Your task to perform on an android device: Clear the shopping cart on target.com. Add razer blackwidow to the cart on target.com, then select checkout. Image 0: 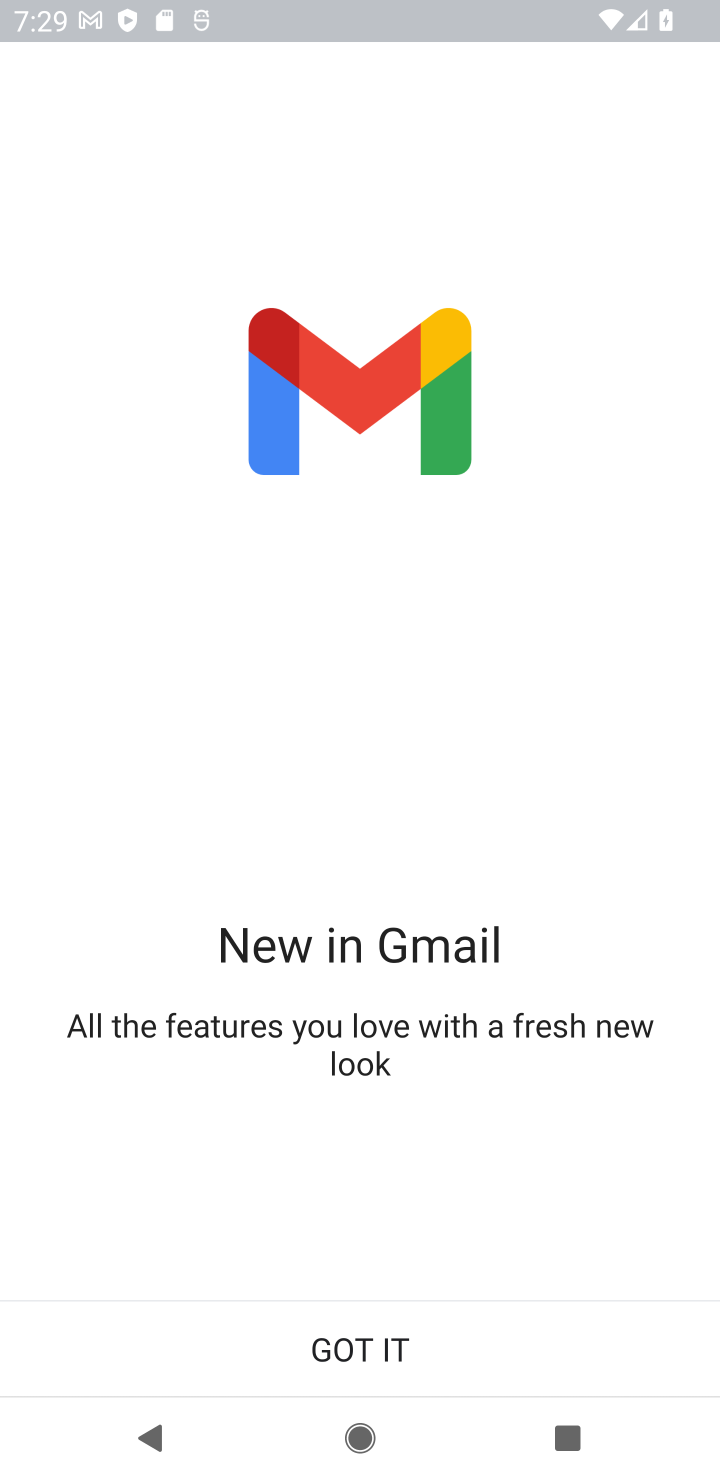
Step 0: press home button
Your task to perform on an android device: Clear the shopping cart on target.com. Add razer blackwidow to the cart on target.com, then select checkout. Image 1: 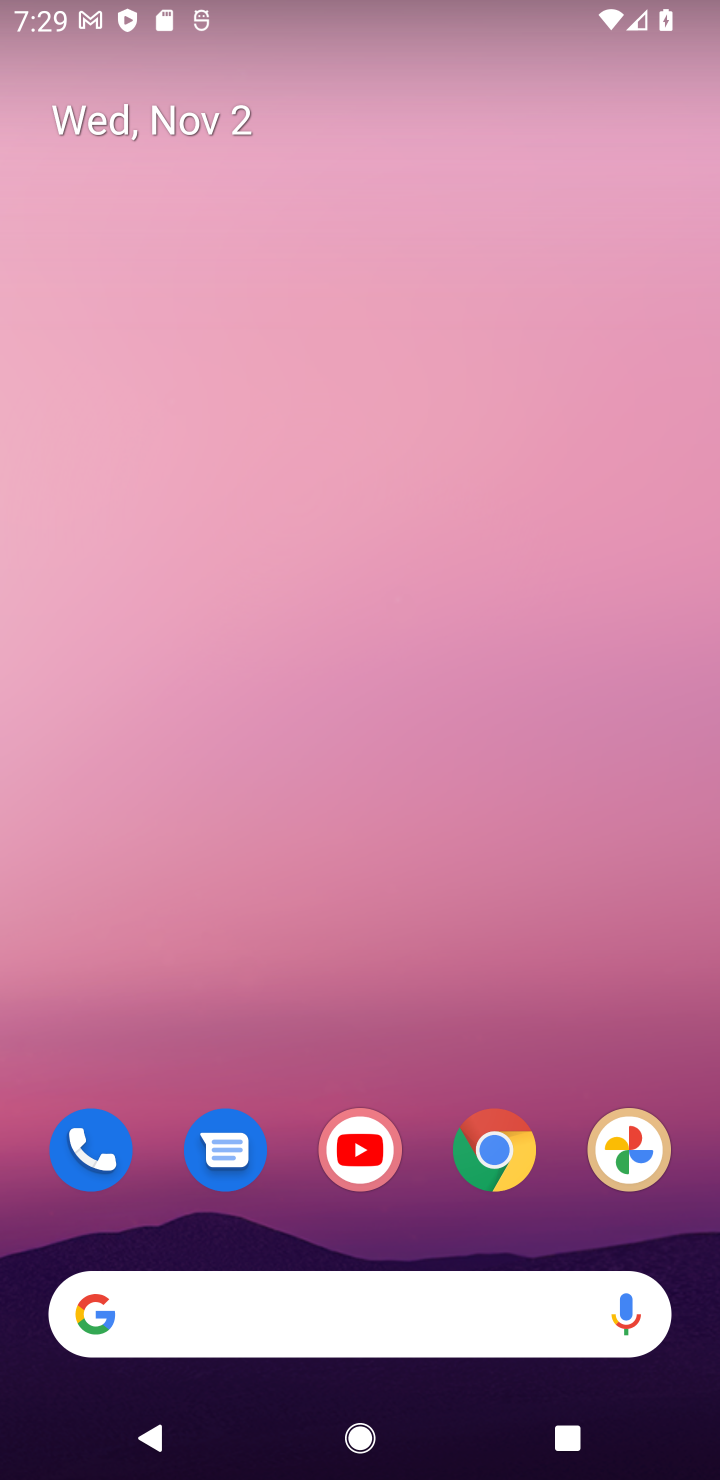
Step 1: click (508, 1143)
Your task to perform on an android device: Clear the shopping cart on target.com. Add razer blackwidow to the cart on target.com, then select checkout. Image 2: 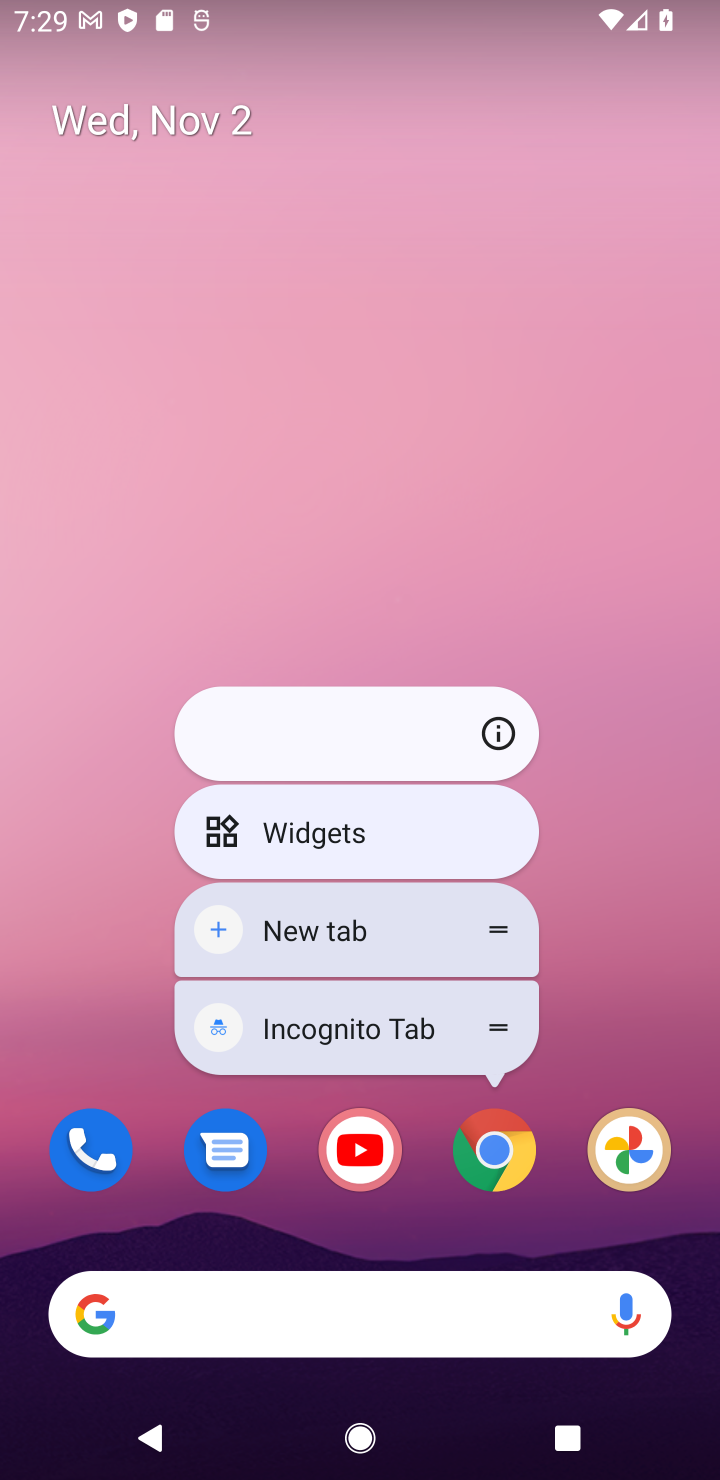
Step 2: click (383, 510)
Your task to perform on an android device: Clear the shopping cart on target.com. Add razer blackwidow to the cart on target.com, then select checkout. Image 3: 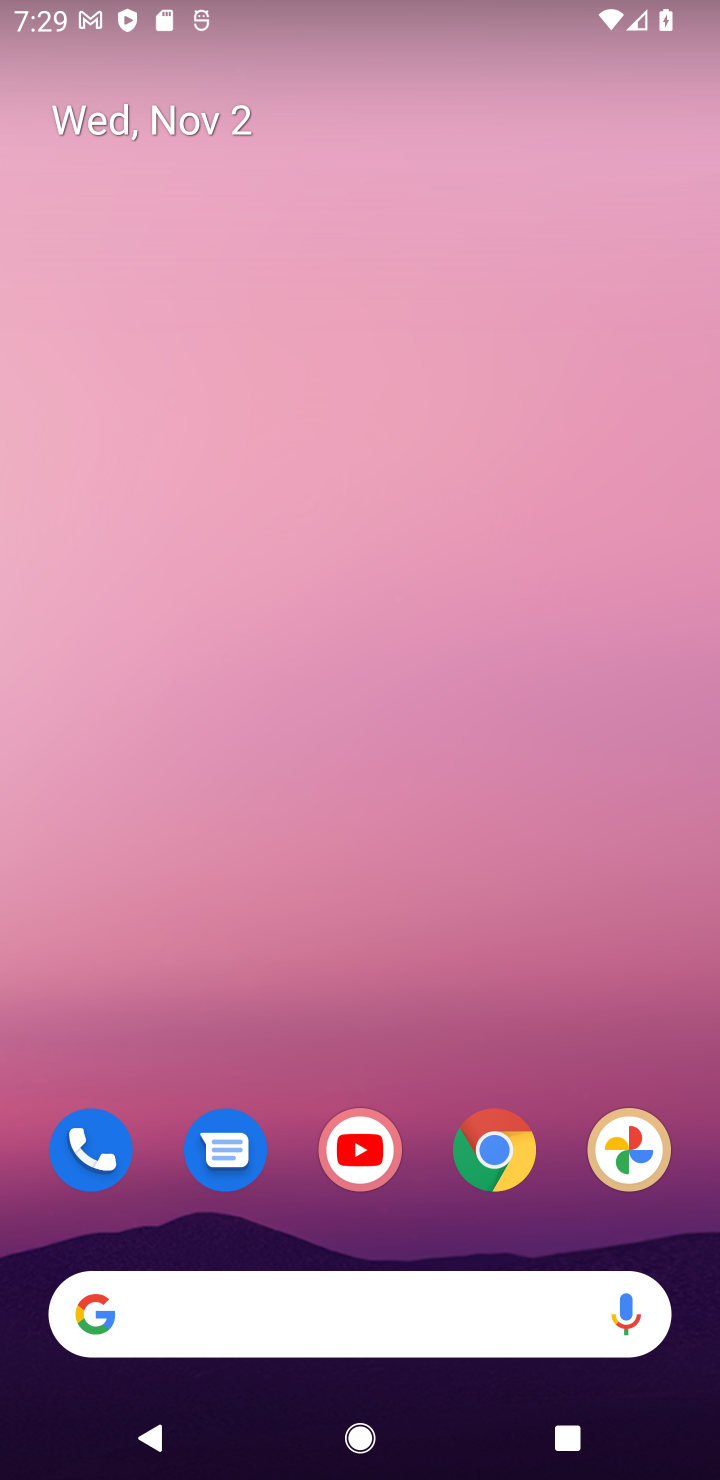
Step 3: click (496, 1144)
Your task to perform on an android device: Clear the shopping cart on target.com. Add razer blackwidow to the cart on target.com, then select checkout. Image 4: 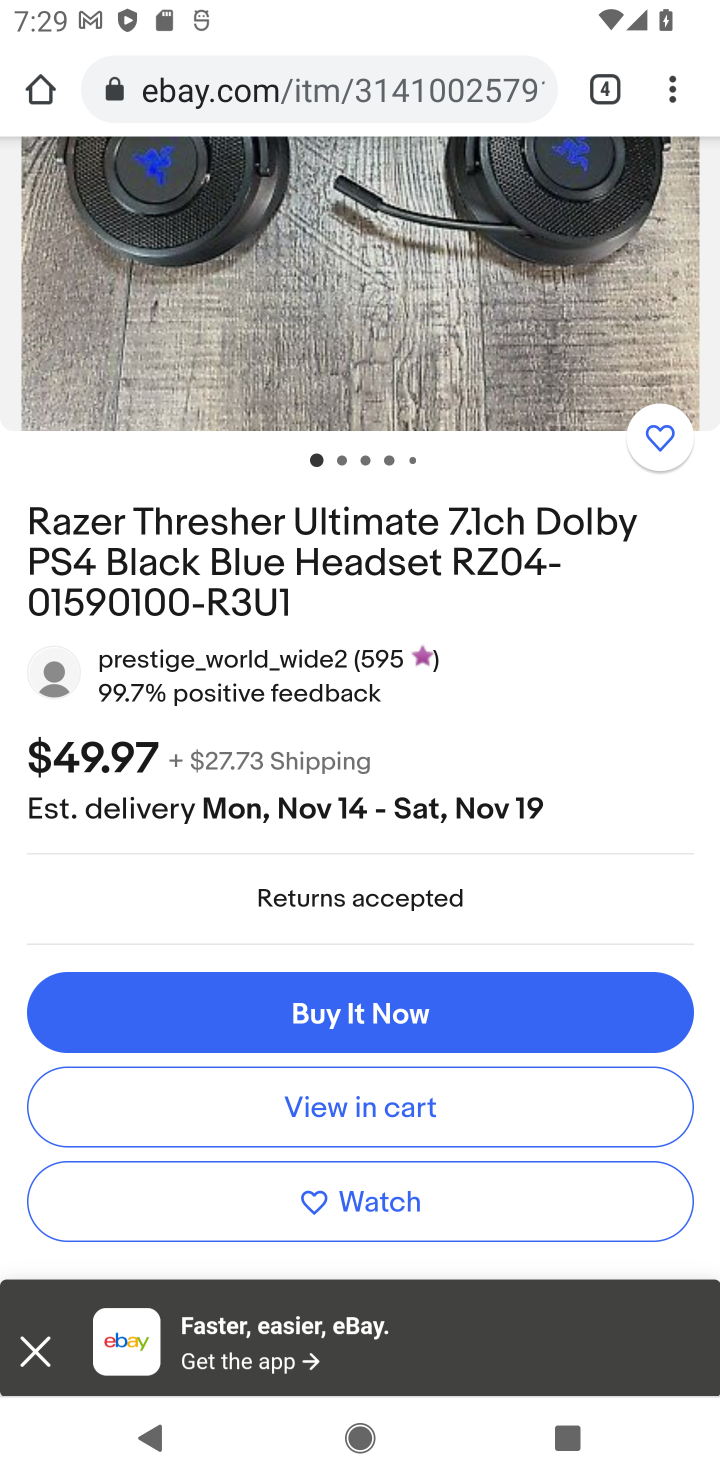
Step 4: click (598, 92)
Your task to perform on an android device: Clear the shopping cart on target.com. Add razer blackwidow to the cart on target.com, then select checkout. Image 5: 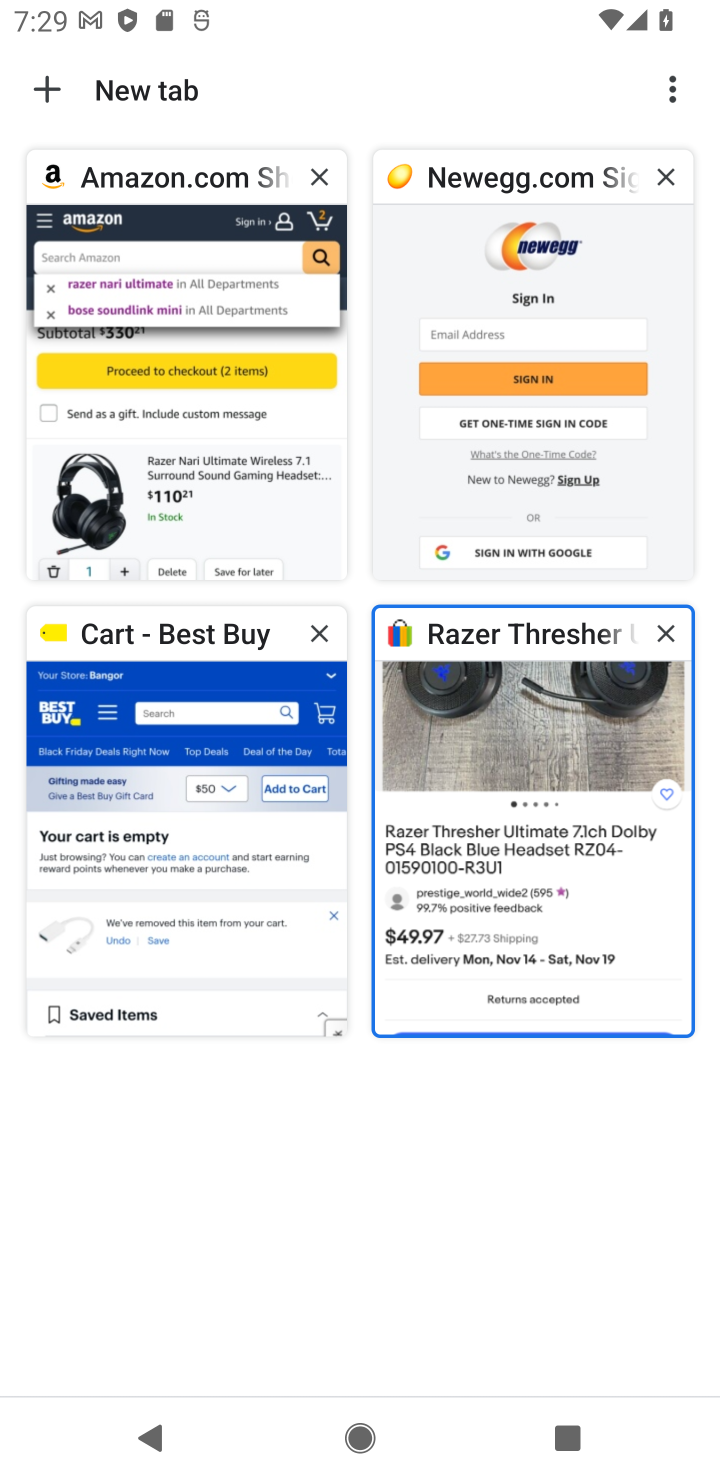
Step 5: click (50, 90)
Your task to perform on an android device: Clear the shopping cart on target.com. Add razer blackwidow to the cart on target.com, then select checkout. Image 6: 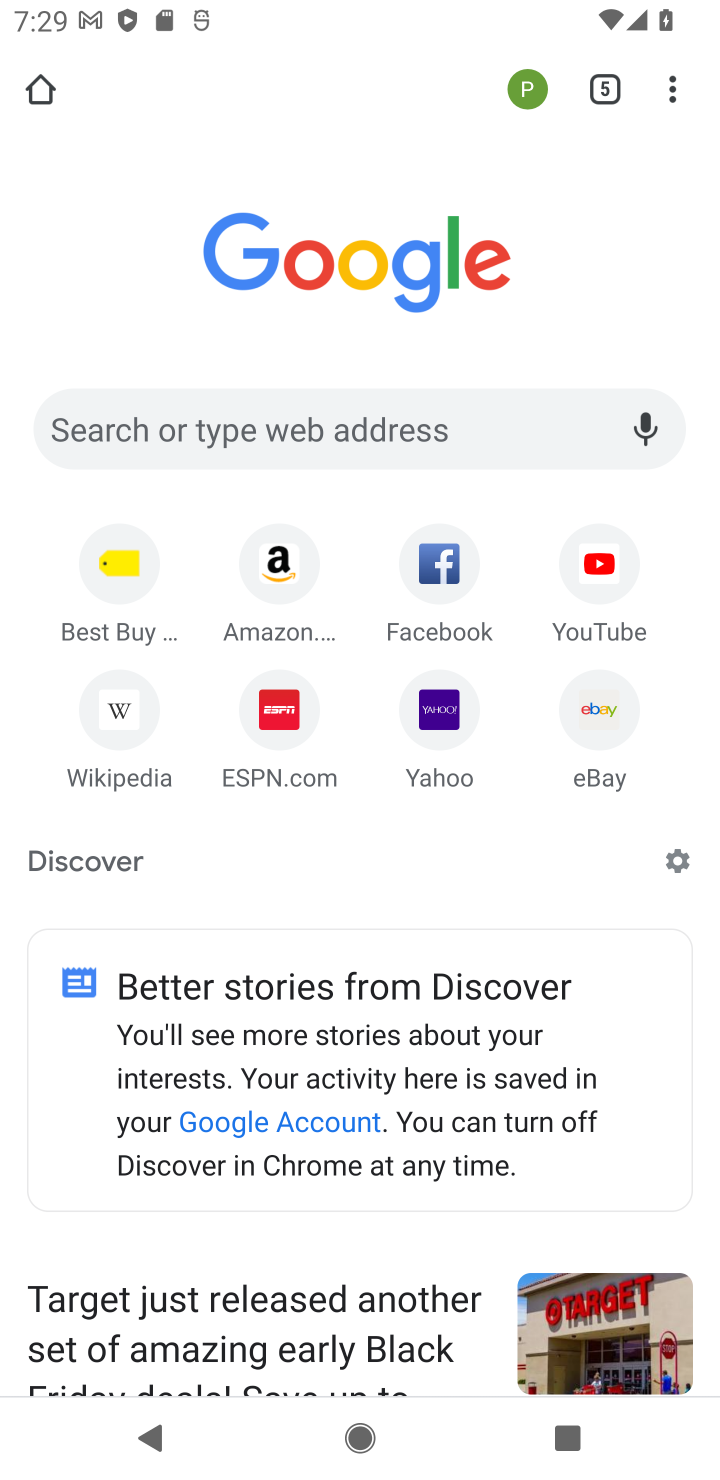
Step 6: click (284, 412)
Your task to perform on an android device: Clear the shopping cart on target.com. Add razer blackwidow to the cart on target.com, then select checkout. Image 7: 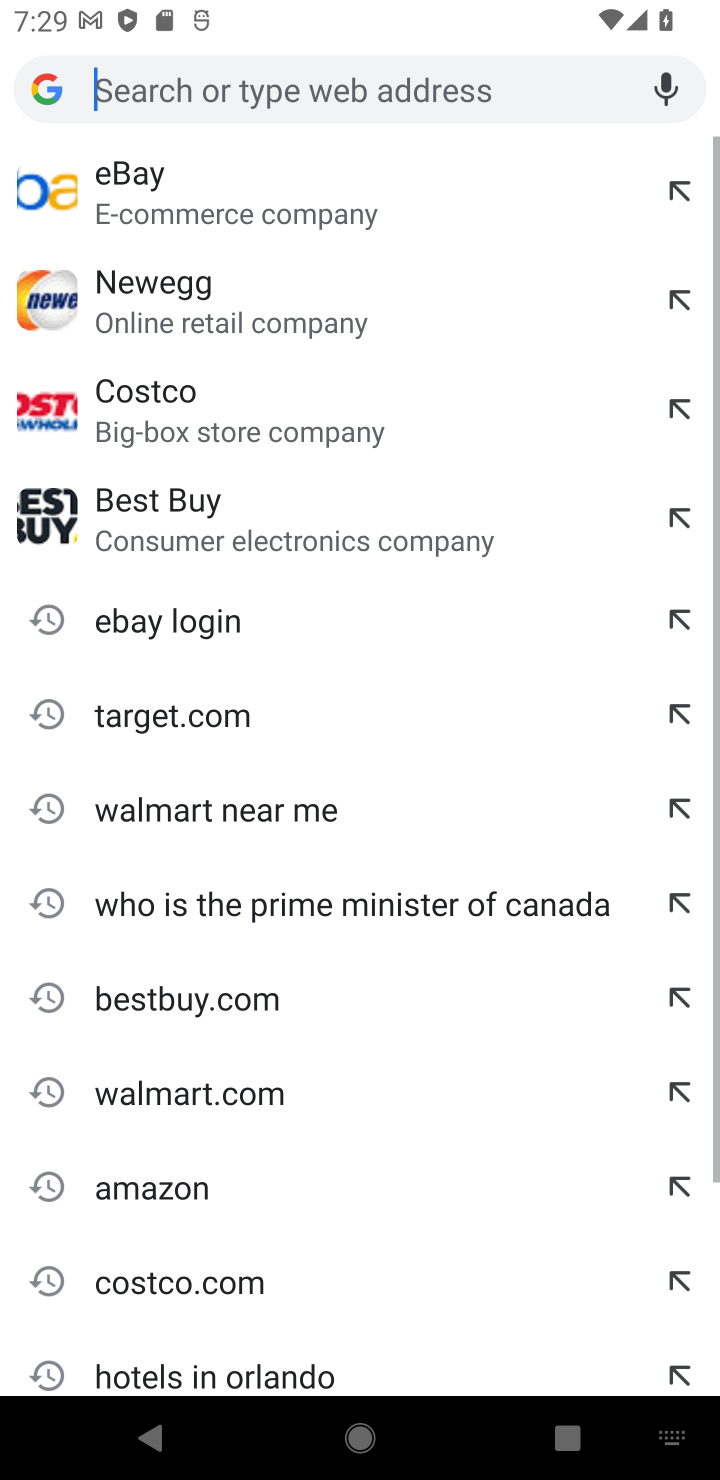
Step 7: type "razer thresher"
Your task to perform on an android device: Clear the shopping cart on target.com. Add razer blackwidow to the cart on target.com, then select checkout. Image 8: 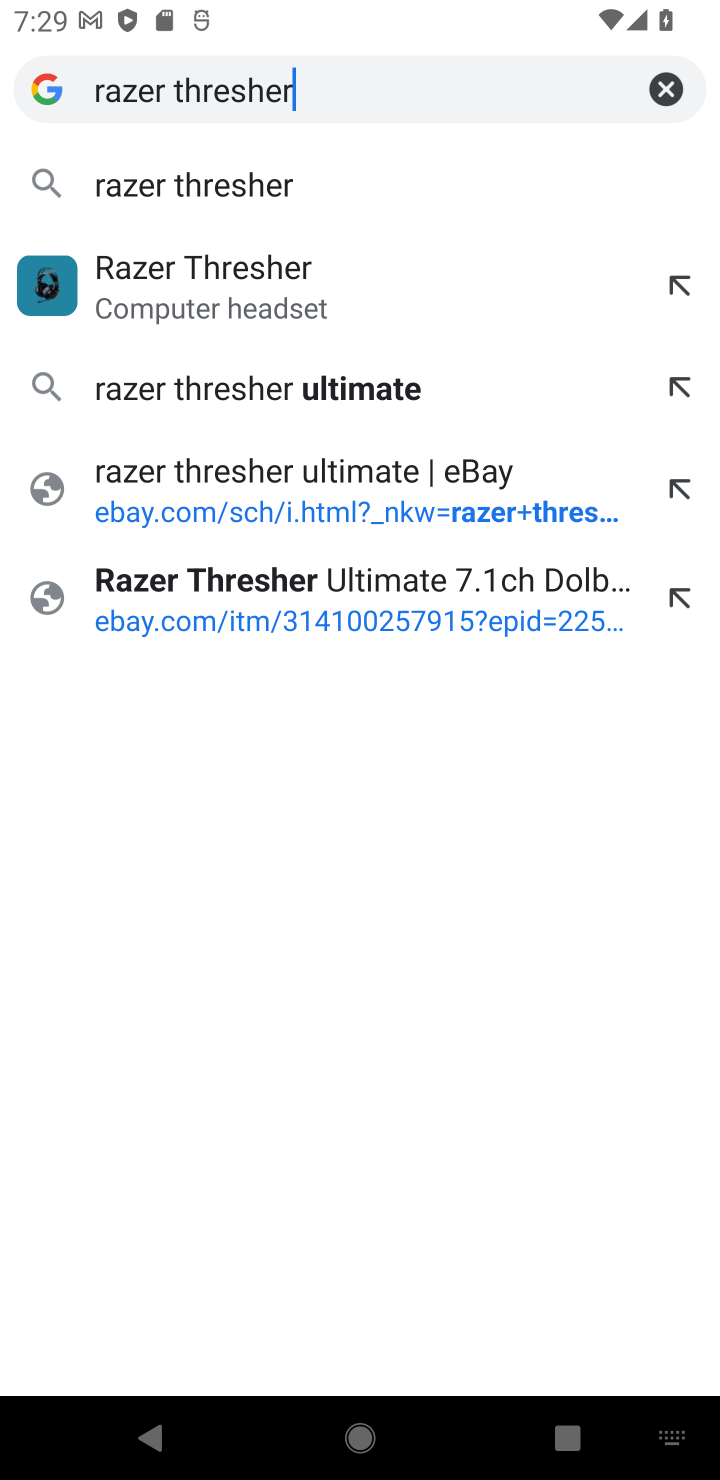
Step 8: click (665, 91)
Your task to perform on an android device: Clear the shopping cart on target.com. Add razer blackwidow to the cart on target.com, then select checkout. Image 9: 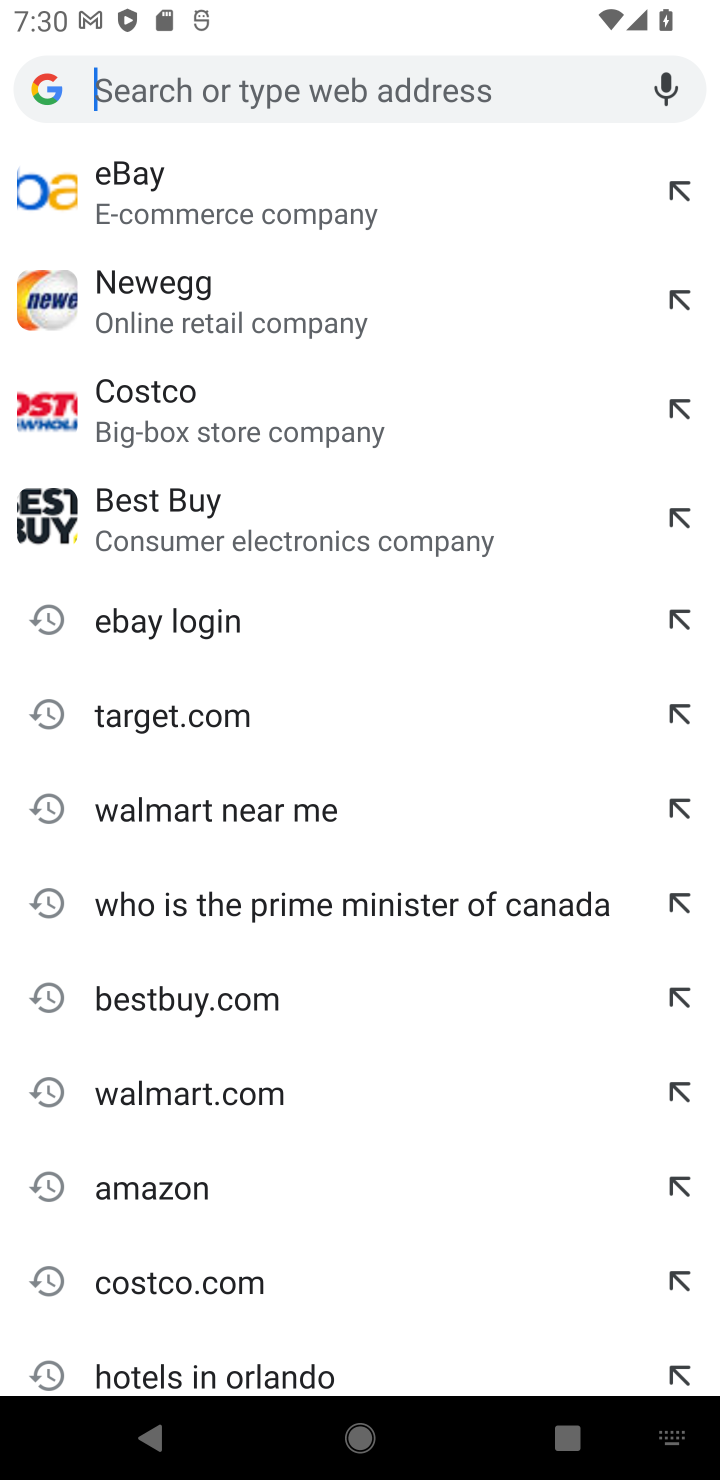
Step 9: type "target"
Your task to perform on an android device: Clear the shopping cart on target.com. Add razer blackwidow to the cart on target.com, then select checkout. Image 10: 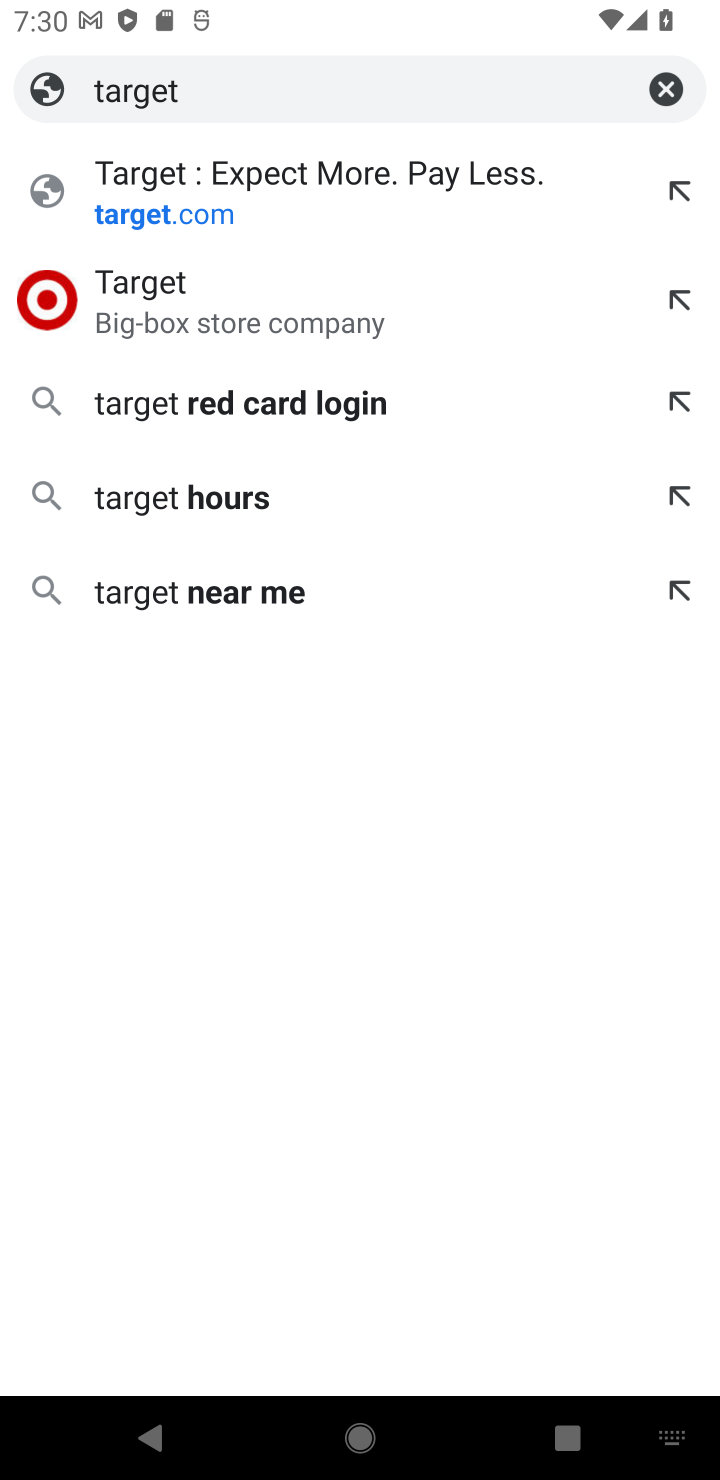
Step 10: click (351, 183)
Your task to perform on an android device: Clear the shopping cart on target.com. Add razer blackwidow to the cart on target.com, then select checkout. Image 11: 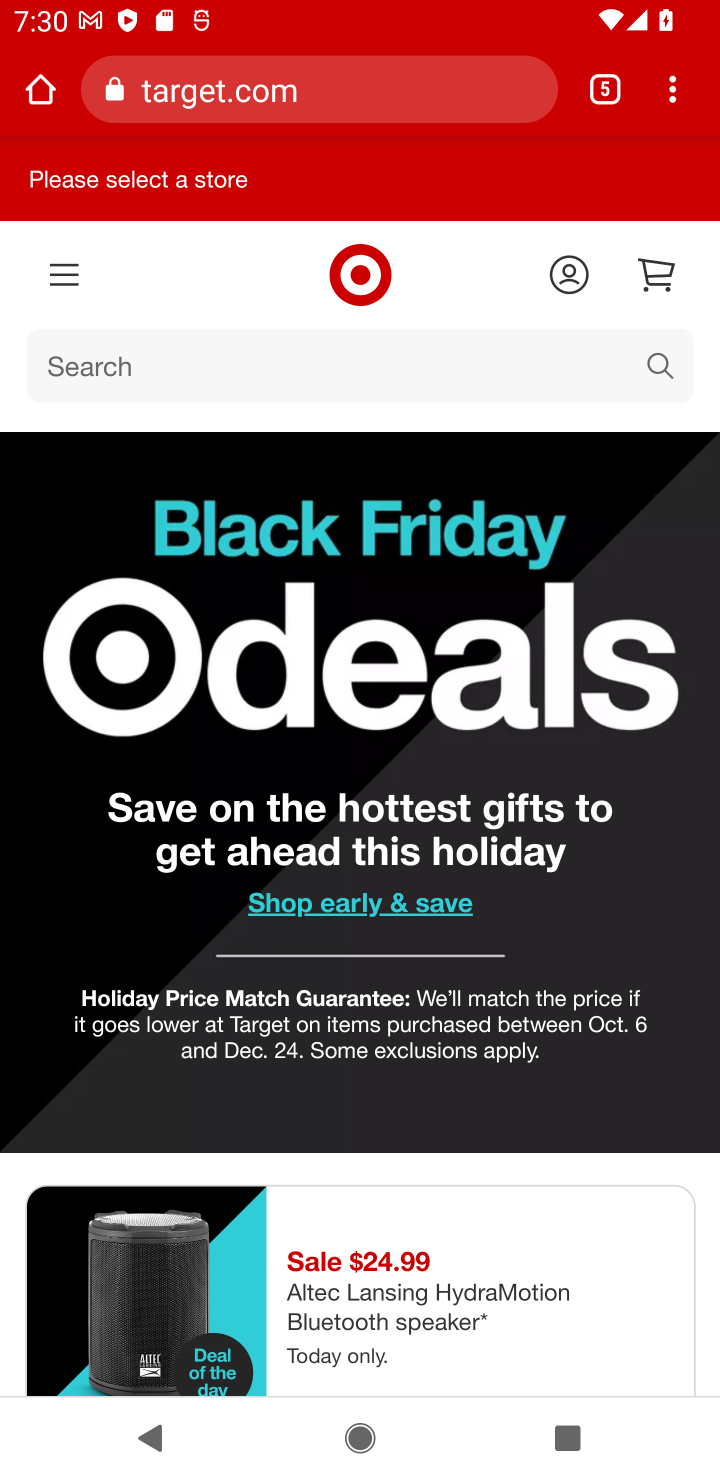
Step 11: click (327, 359)
Your task to perform on an android device: Clear the shopping cart on target.com. Add razer blackwidow to the cart on target.com, then select checkout. Image 12: 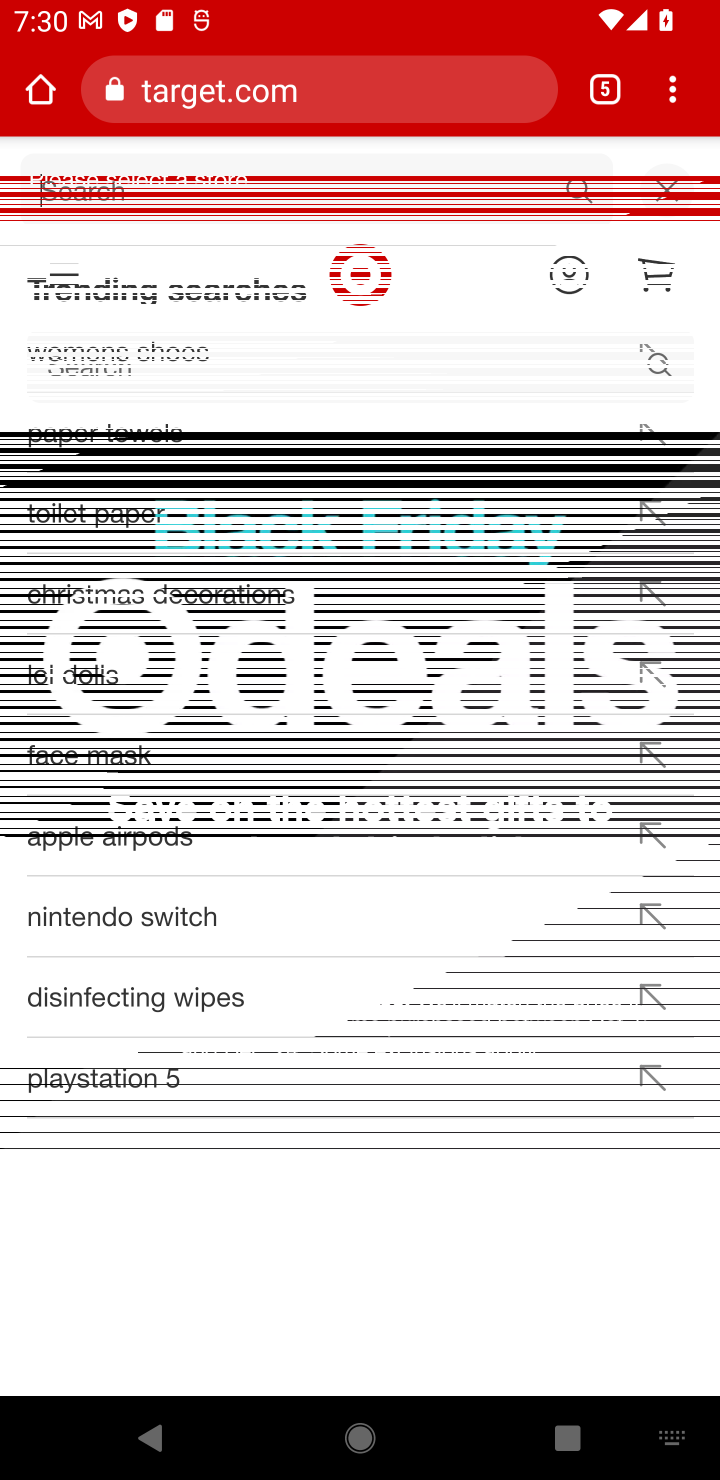
Step 12: type "razer blackwidow"
Your task to perform on an android device: Clear the shopping cart on target.com. Add razer blackwidow to the cart on target.com, then select checkout. Image 13: 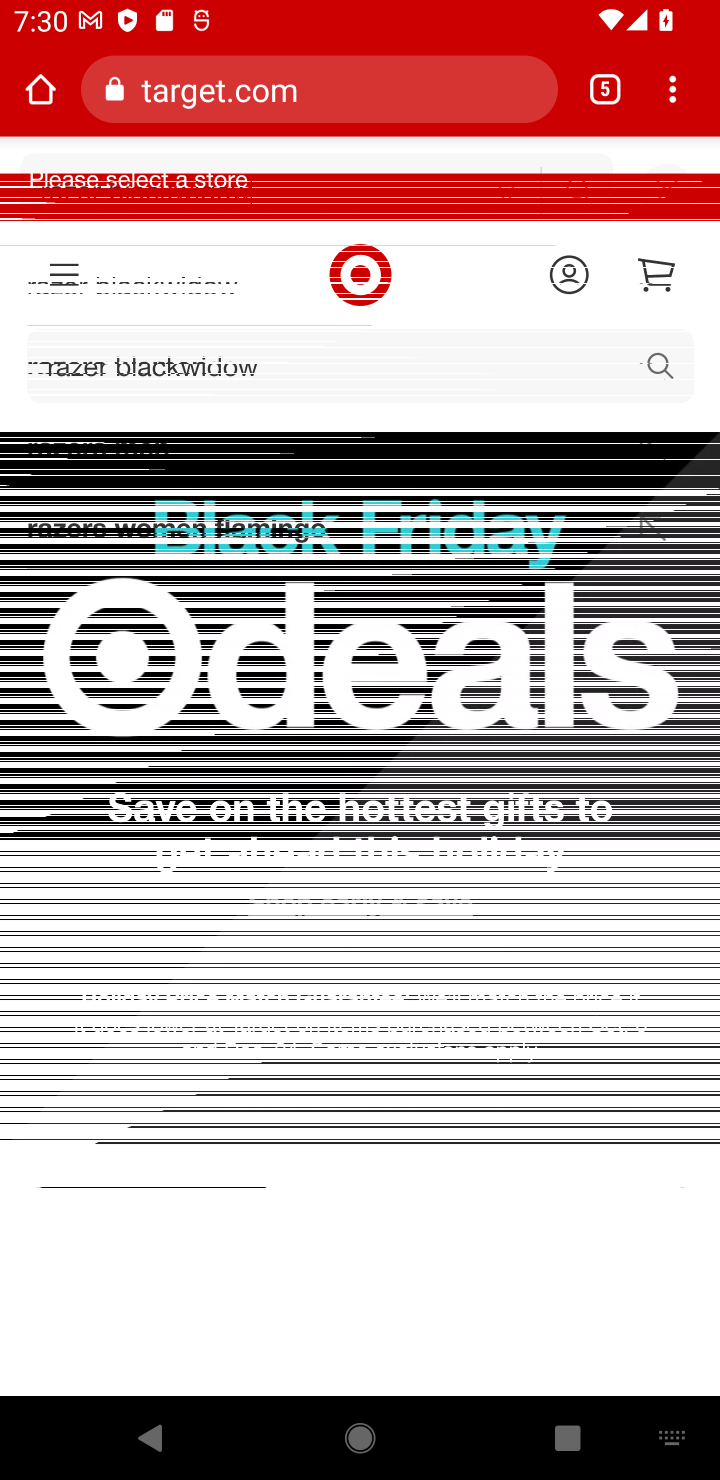
Step 13: click (216, 283)
Your task to perform on an android device: Clear the shopping cart on target.com. Add razer blackwidow to the cart on target.com, then select checkout. Image 14: 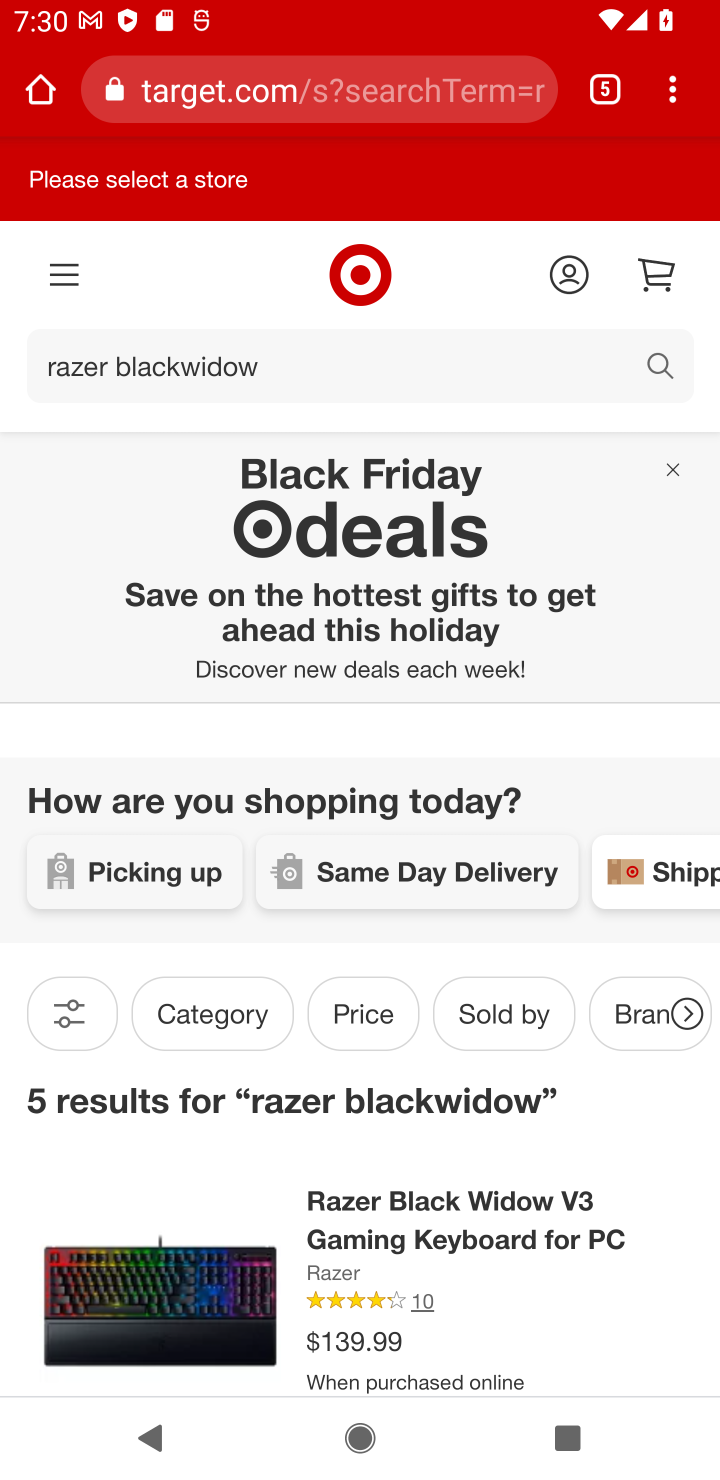
Step 14: click (542, 1258)
Your task to perform on an android device: Clear the shopping cart on target.com. Add razer blackwidow to the cart on target.com, then select checkout. Image 15: 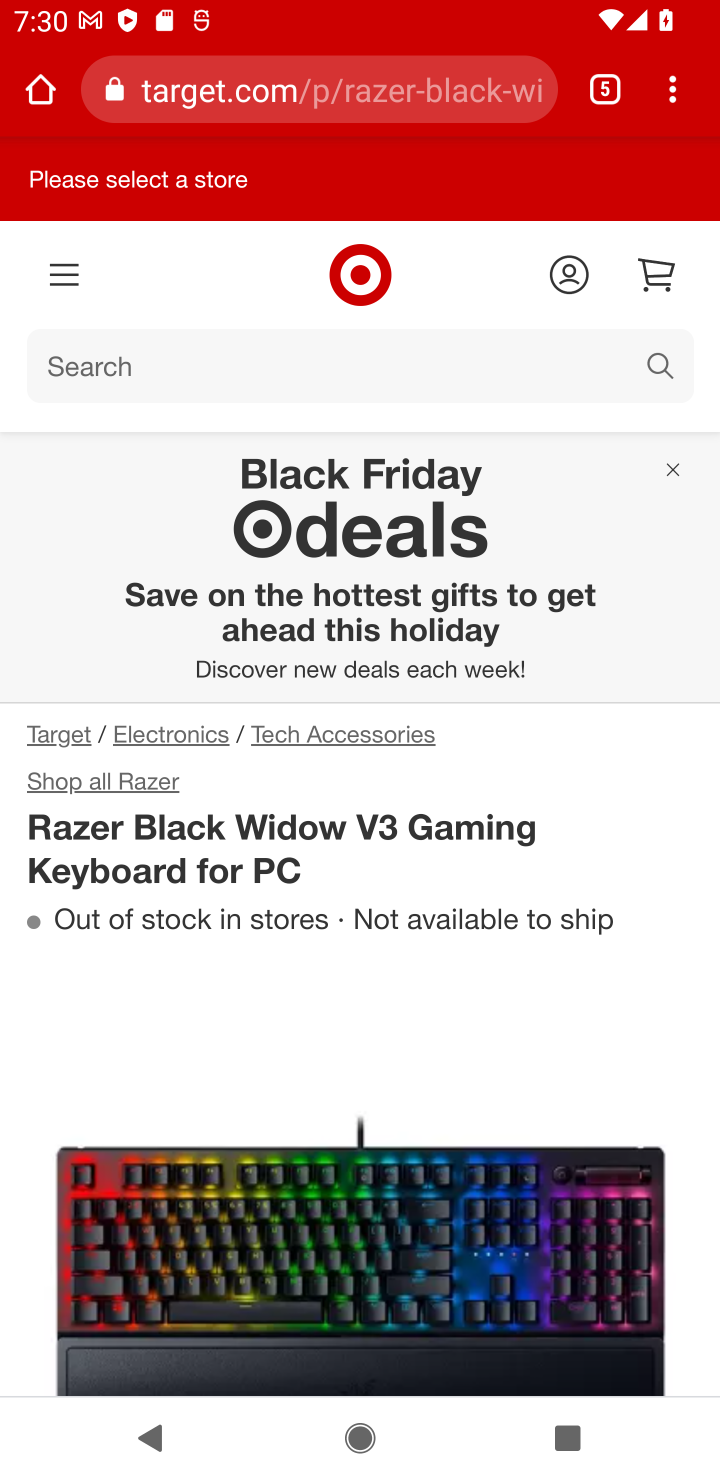
Step 15: drag from (408, 980) to (453, 506)
Your task to perform on an android device: Clear the shopping cart on target.com. Add razer blackwidow to the cart on target.com, then select checkout. Image 16: 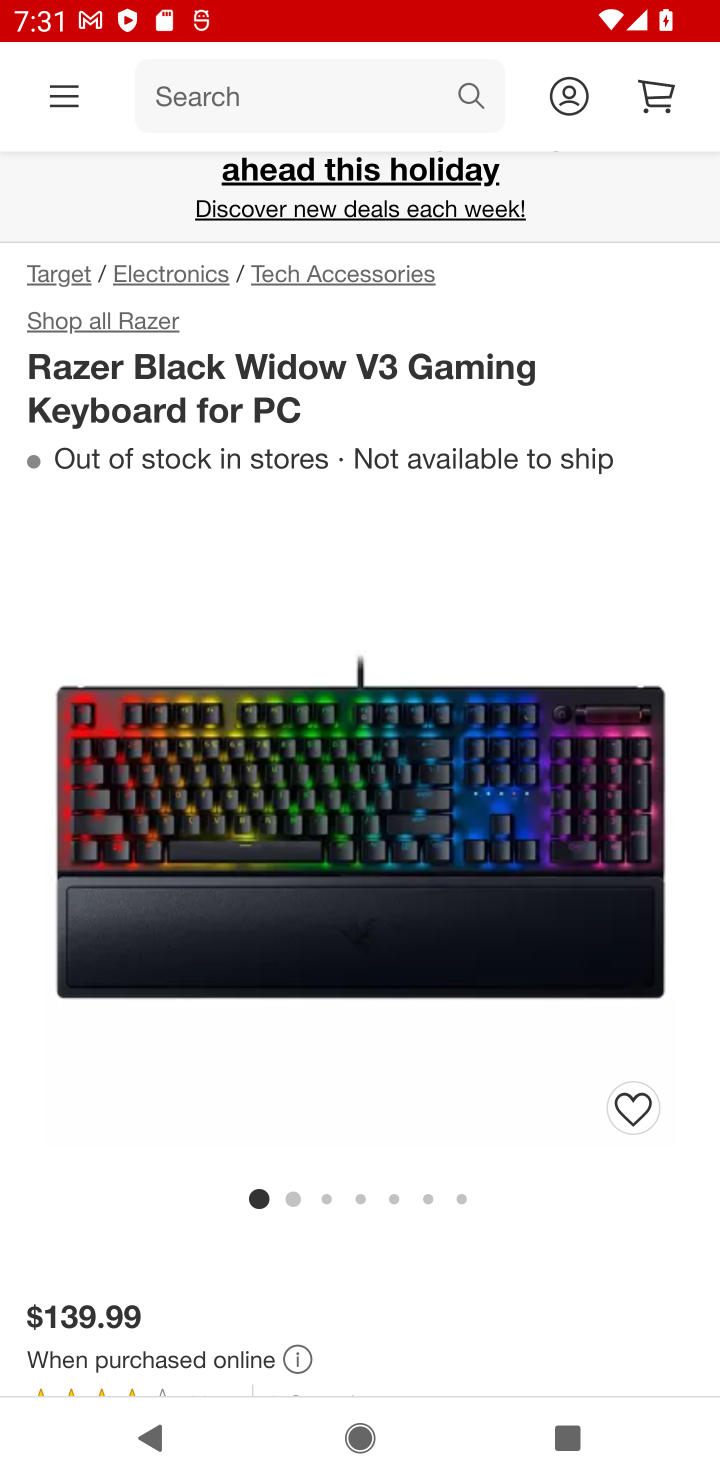
Step 16: drag from (218, 637) to (163, 176)
Your task to perform on an android device: Clear the shopping cart on target.com. Add razer blackwidow to the cart on target.com, then select checkout. Image 17: 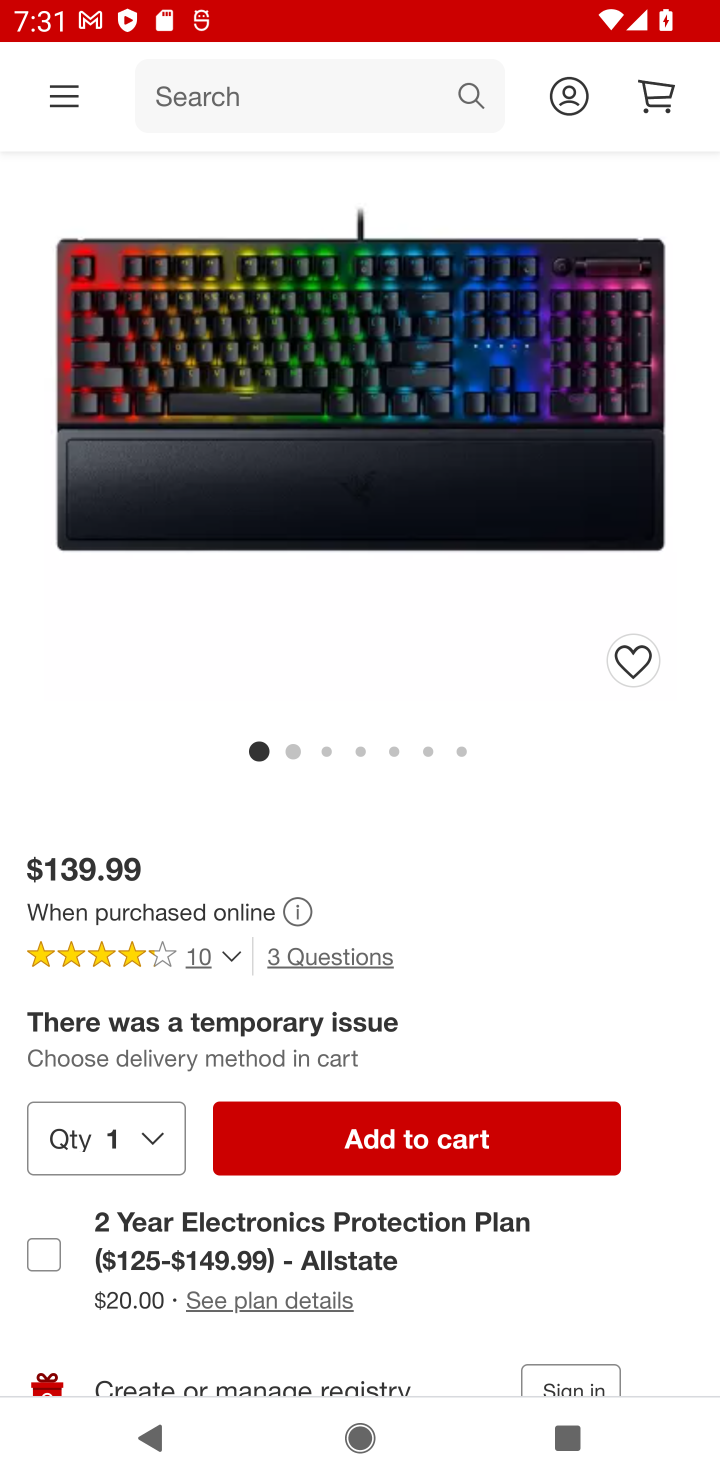
Step 17: click (425, 1155)
Your task to perform on an android device: Clear the shopping cart on target.com. Add razer blackwidow to the cart on target.com, then select checkout. Image 18: 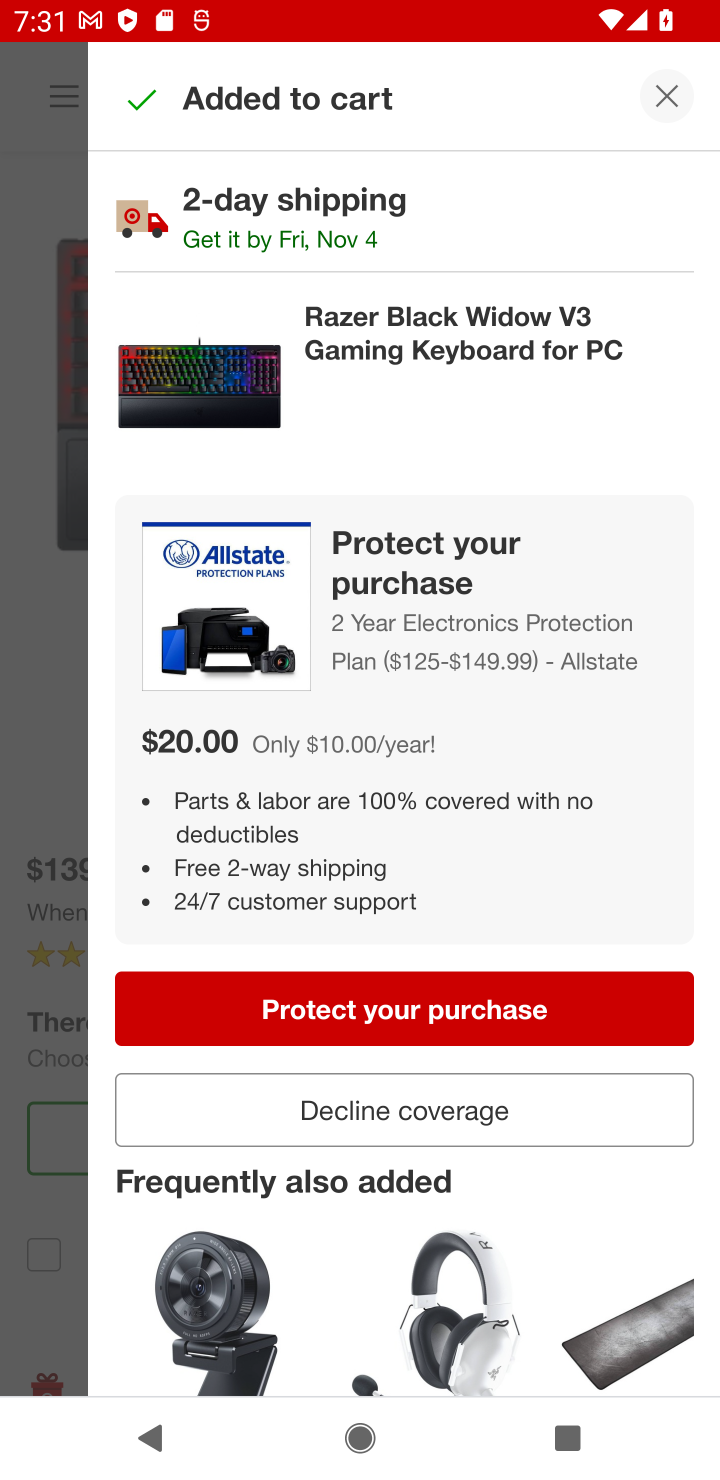
Step 18: task complete